Your task to perform on an android device: Go to sound settings Image 0: 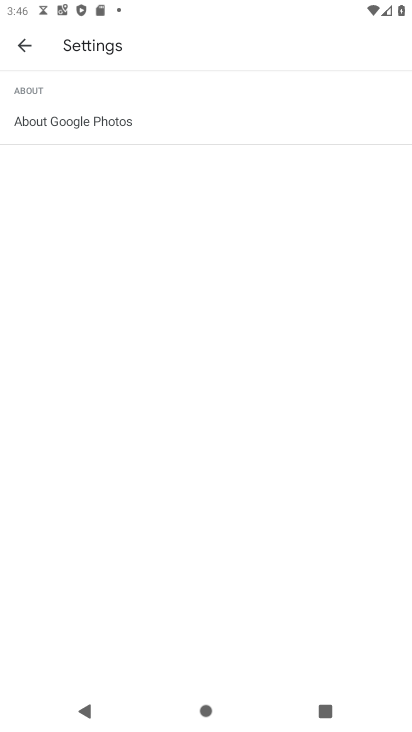
Step 0: press home button
Your task to perform on an android device: Go to sound settings Image 1: 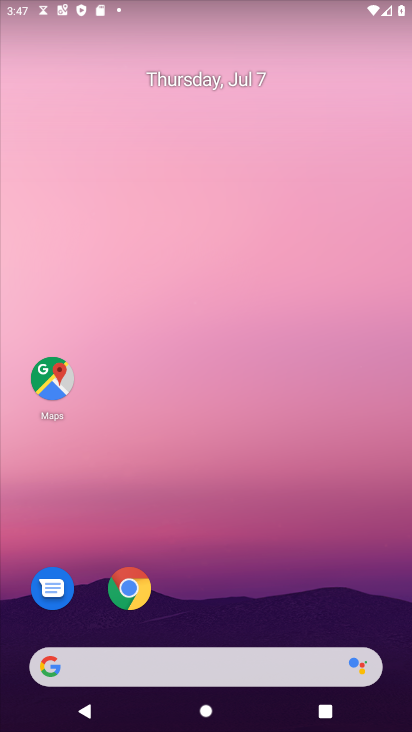
Step 1: drag from (221, 625) to (261, 63)
Your task to perform on an android device: Go to sound settings Image 2: 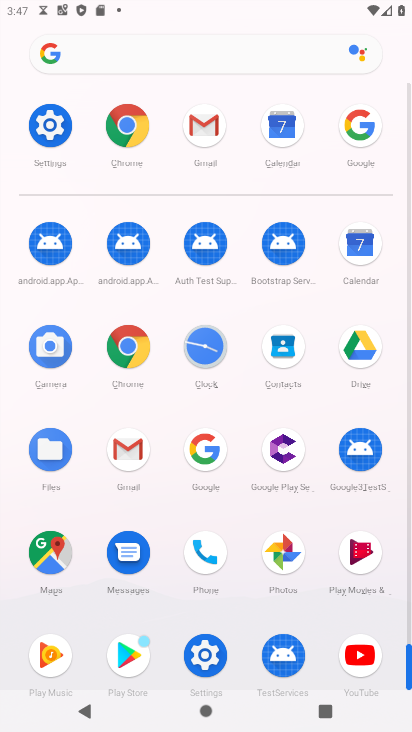
Step 2: click (52, 128)
Your task to perform on an android device: Go to sound settings Image 3: 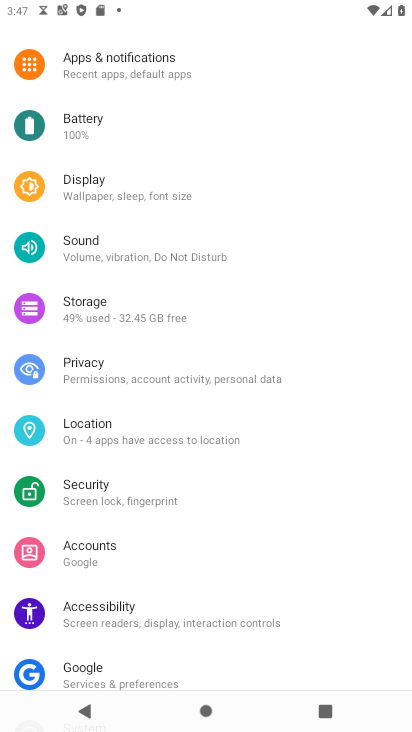
Step 3: click (94, 250)
Your task to perform on an android device: Go to sound settings Image 4: 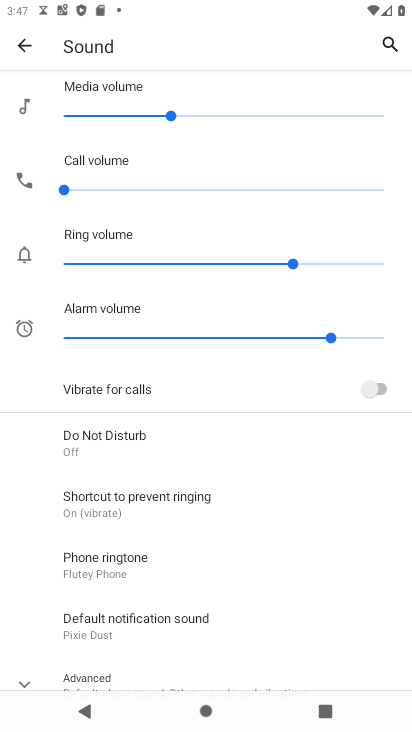
Step 4: task complete